Your task to perform on an android device: refresh tabs in the chrome app Image 0: 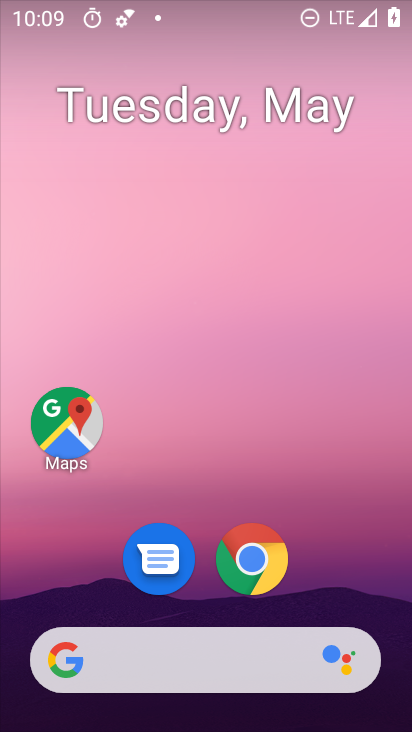
Step 0: drag from (391, 633) to (278, 132)
Your task to perform on an android device: refresh tabs in the chrome app Image 1: 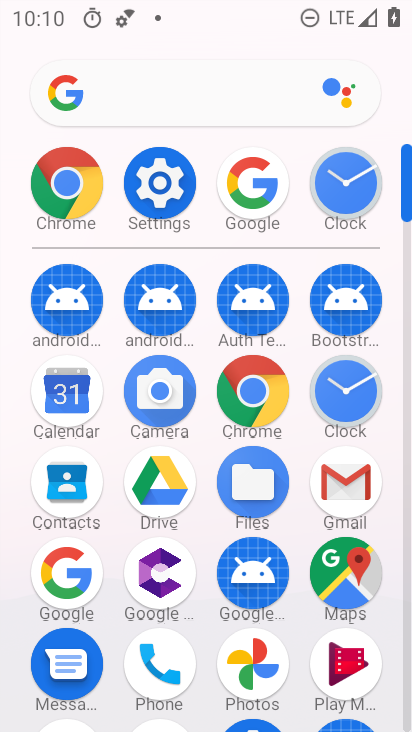
Step 1: click (266, 410)
Your task to perform on an android device: refresh tabs in the chrome app Image 2: 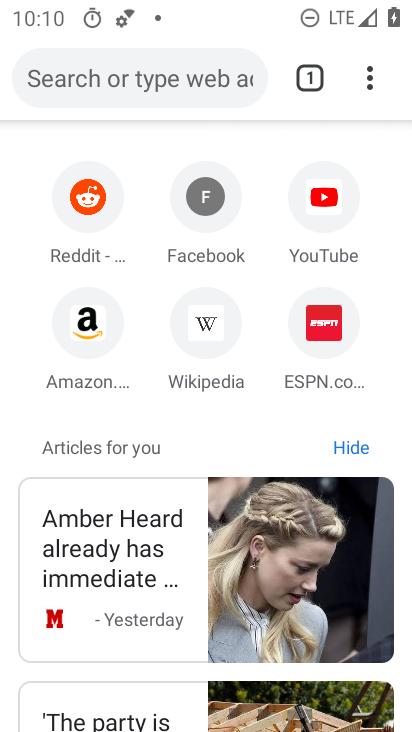
Step 2: click (371, 69)
Your task to perform on an android device: refresh tabs in the chrome app Image 3: 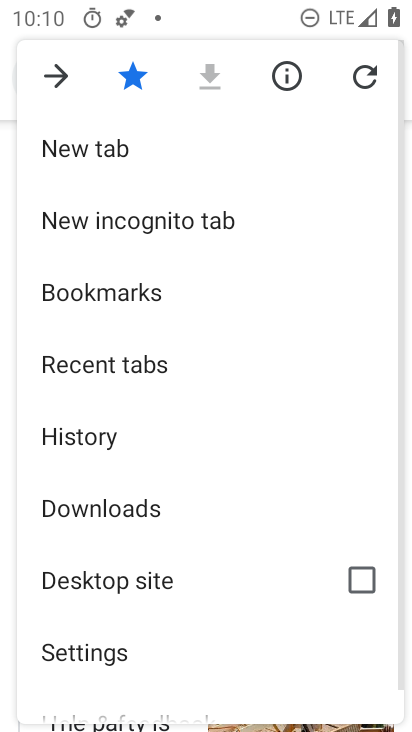
Step 3: click (364, 73)
Your task to perform on an android device: refresh tabs in the chrome app Image 4: 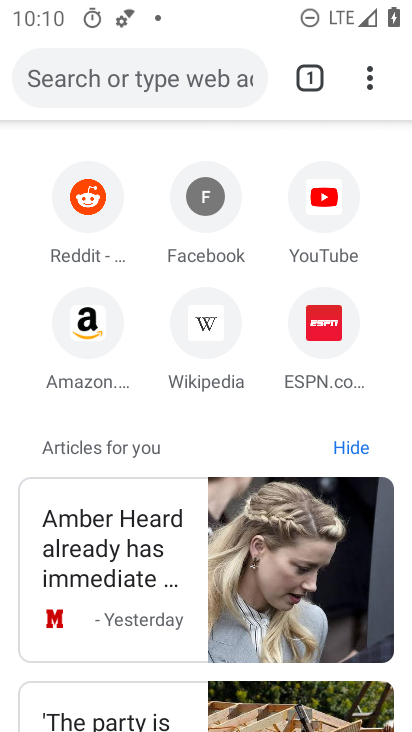
Step 4: task complete